Your task to perform on an android device: Open calendar and show me the fourth week of next month Image 0: 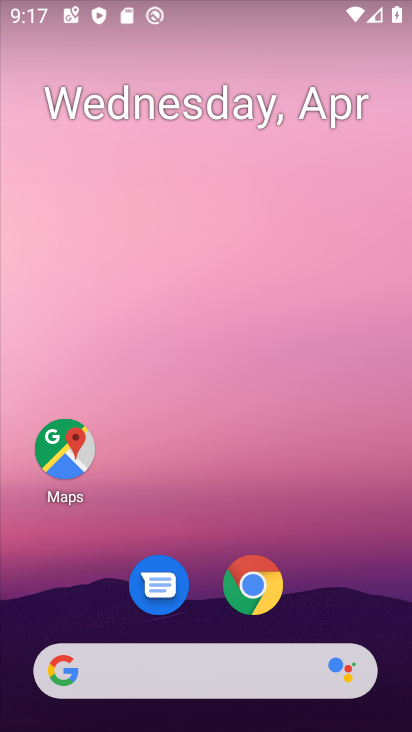
Step 0: drag from (328, 572) to (328, 101)
Your task to perform on an android device: Open calendar and show me the fourth week of next month Image 1: 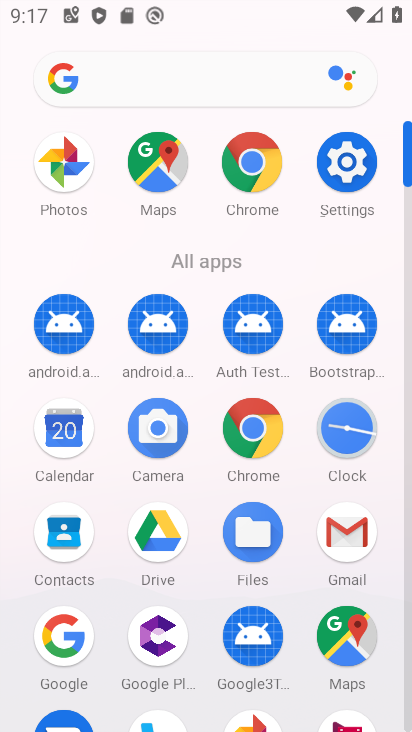
Step 1: click (69, 434)
Your task to perform on an android device: Open calendar and show me the fourth week of next month Image 2: 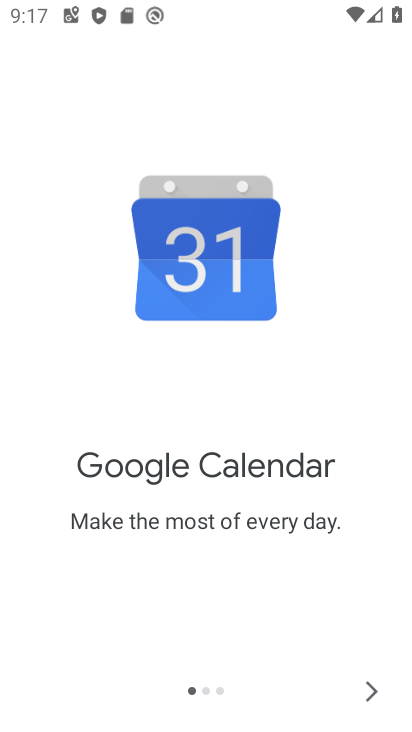
Step 2: click (373, 682)
Your task to perform on an android device: Open calendar and show me the fourth week of next month Image 3: 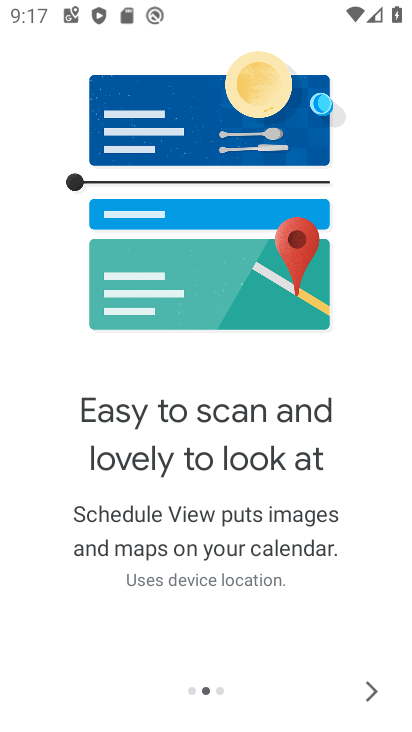
Step 3: click (373, 682)
Your task to perform on an android device: Open calendar and show me the fourth week of next month Image 4: 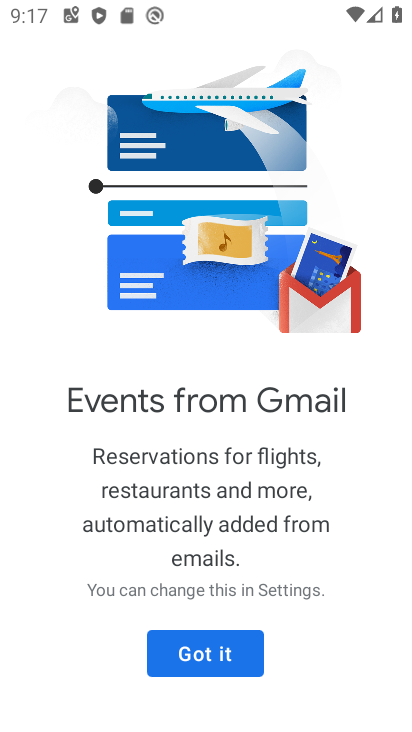
Step 4: click (248, 650)
Your task to perform on an android device: Open calendar and show me the fourth week of next month Image 5: 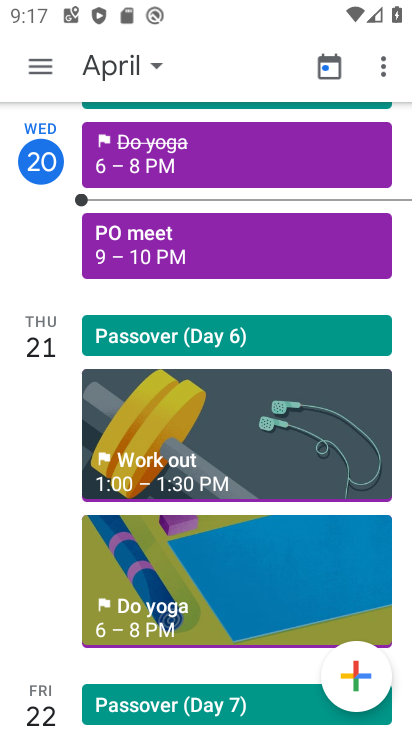
Step 5: click (37, 64)
Your task to perform on an android device: Open calendar and show me the fourth week of next month Image 6: 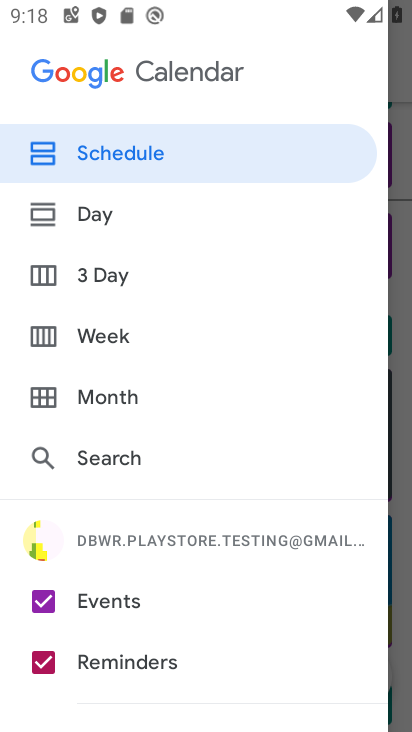
Step 6: click (39, 330)
Your task to perform on an android device: Open calendar and show me the fourth week of next month Image 7: 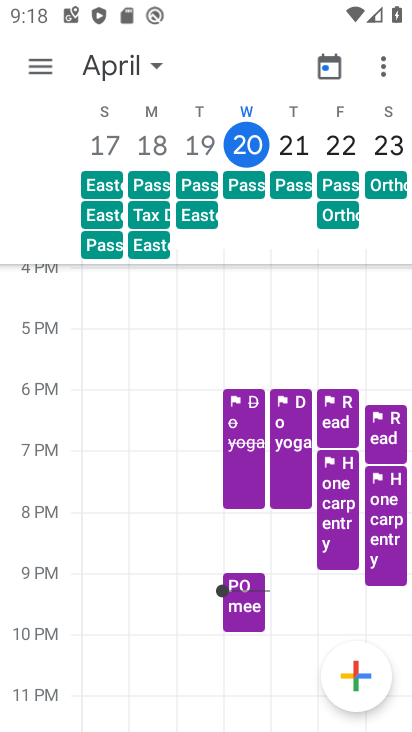
Step 7: click (294, 322)
Your task to perform on an android device: Open calendar and show me the fourth week of next month Image 8: 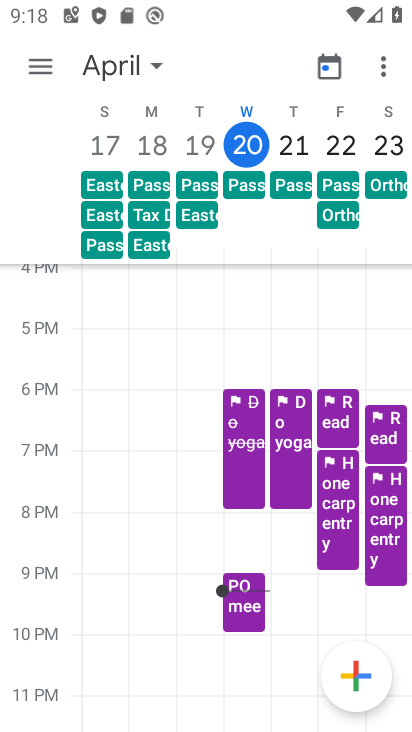
Step 8: task complete